Your task to perform on an android device: set default search engine in the chrome app Image 0: 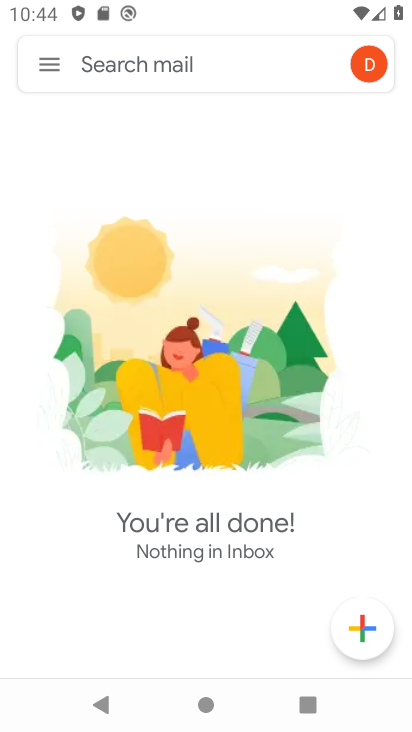
Step 0: press home button
Your task to perform on an android device: set default search engine in the chrome app Image 1: 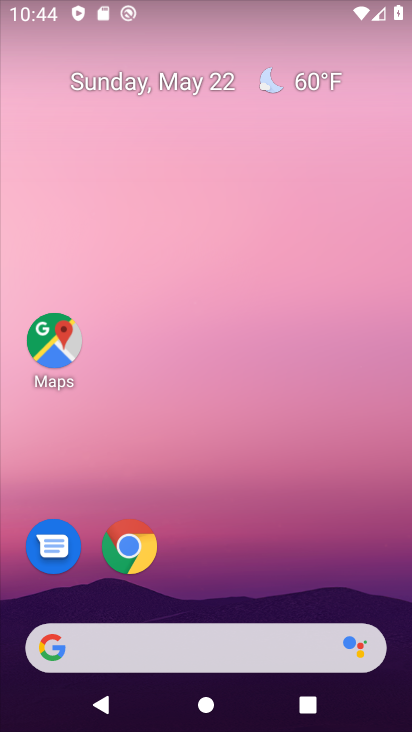
Step 1: click (132, 547)
Your task to perform on an android device: set default search engine in the chrome app Image 2: 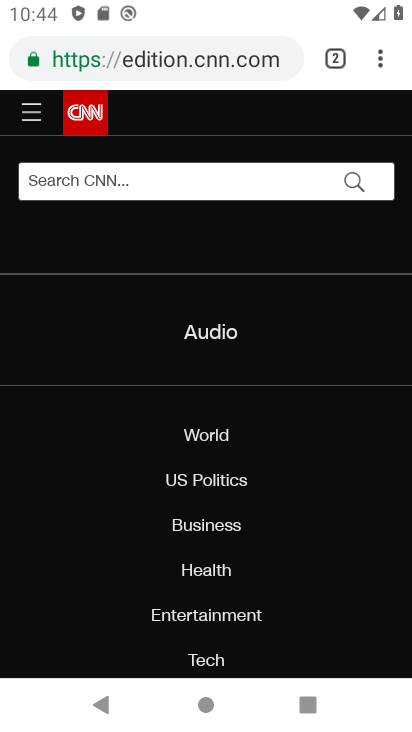
Step 2: click (379, 65)
Your task to perform on an android device: set default search engine in the chrome app Image 3: 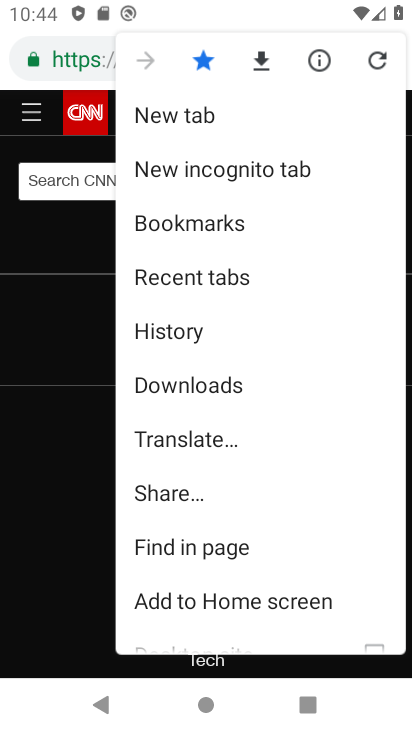
Step 3: drag from (204, 608) to (197, 122)
Your task to perform on an android device: set default search engine in the chrome app Image 4: 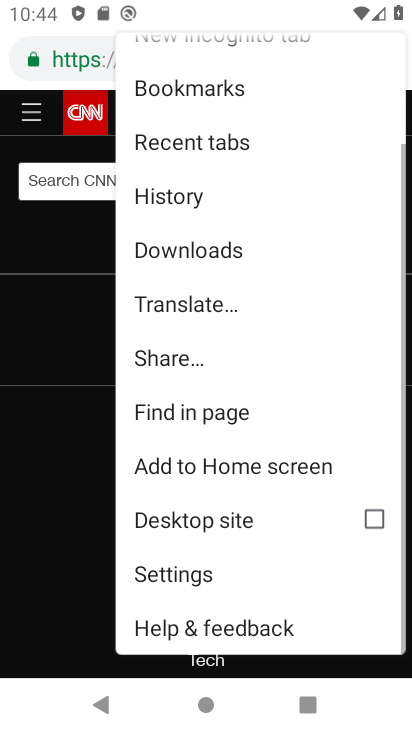
Step 4: click (176, 566)
Your task to perform on an android device: set default search engine in the chrome app Image 5: 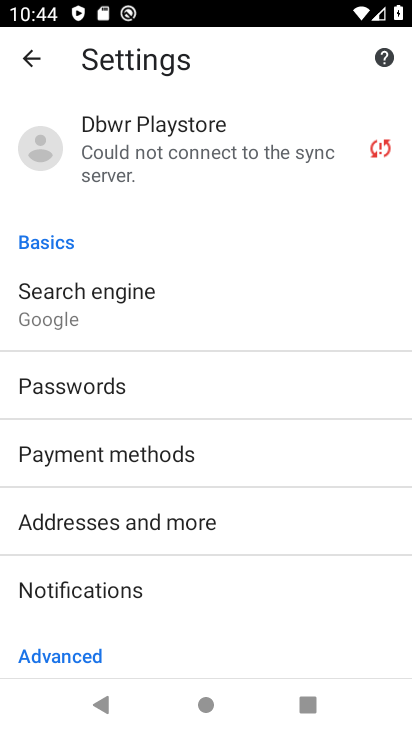
Step 5: click (85, 275)
Your task to perform on an android device: set default search engine in the chrome app Image 6: 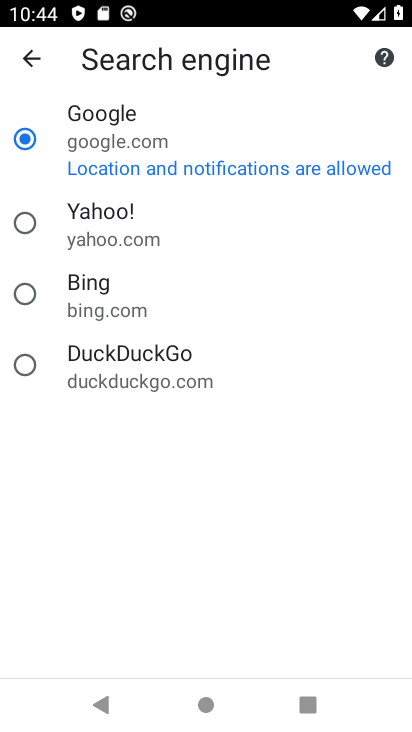
Step 6: click (29, 218)
Your task to perform on an android device: set default search engine in the chrome app Image 7: 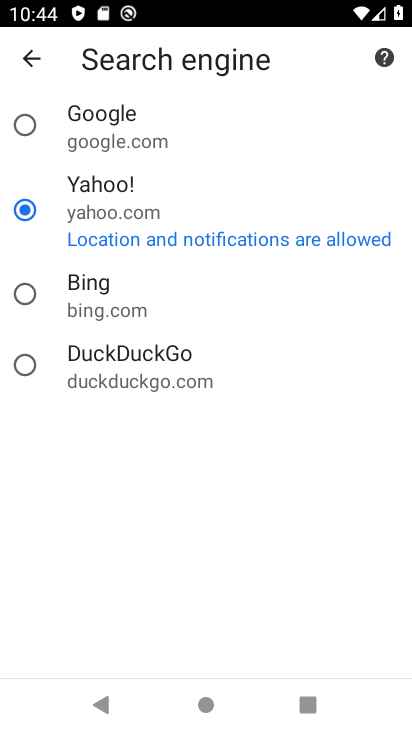
Step 7: task complete